Your task to perform on an android device: What is the news today? Image 0: 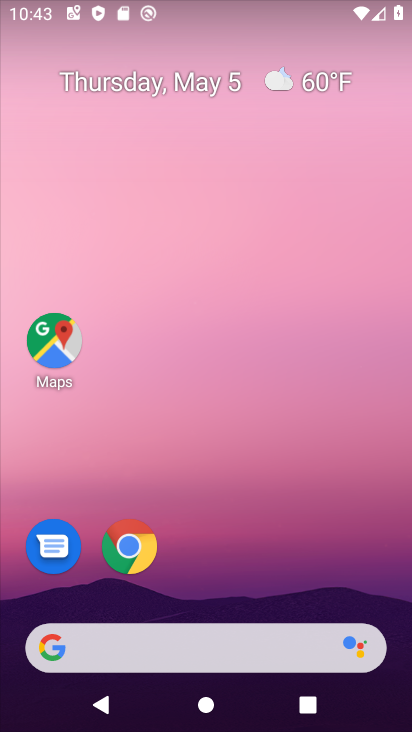
Step 0: drag from (301, 586) to (333, 58)
Your task to perform on an android device: What is the news today? Image 1: 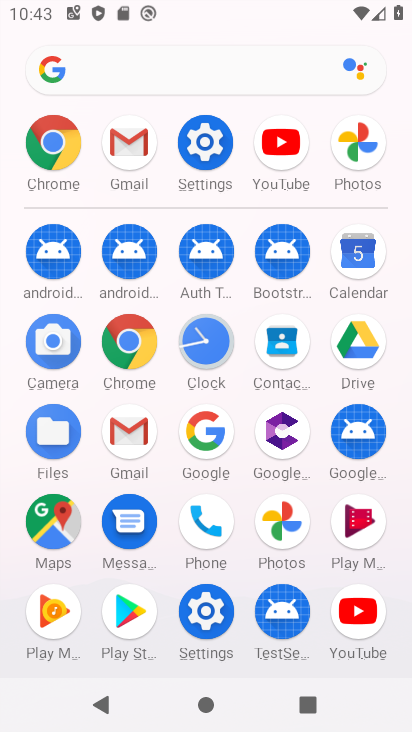
Step 1: click (127, 72)
Your task to perform on an android device: What is the news today? Image 2: 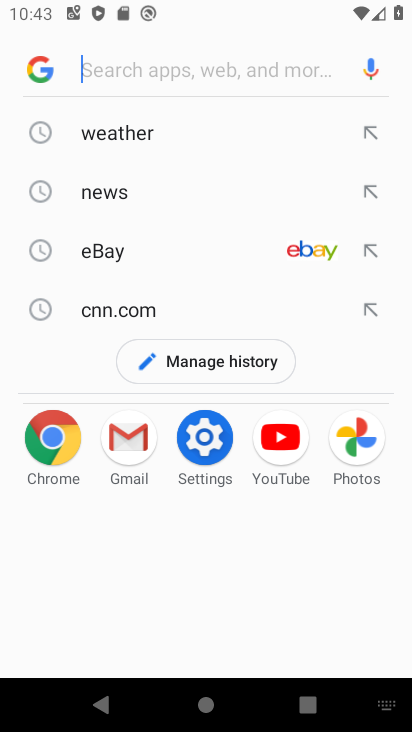
Step 2: type "what is the news today "
Your task to perform on an android device: What is the news today? Image 3: 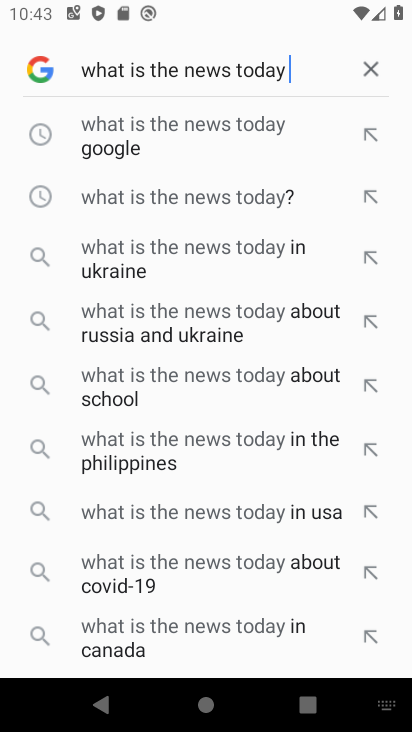
Step 3: click (231, 208)
Your task to perform on an android device: What is the news today? Image 4: 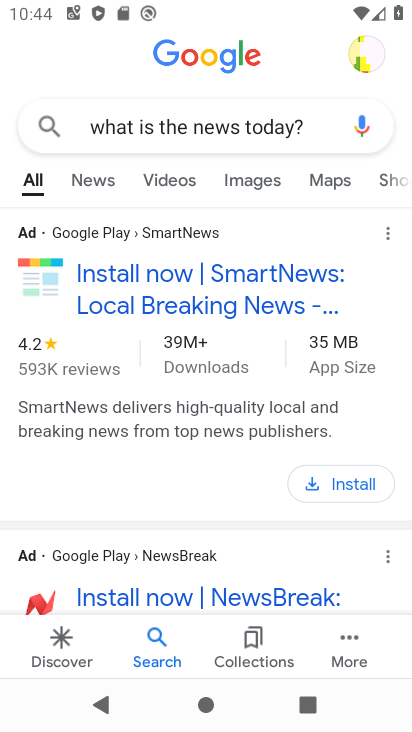
Step 4: click (105, 173)
Your task to perform on an android device: What is the news today? Image 5: 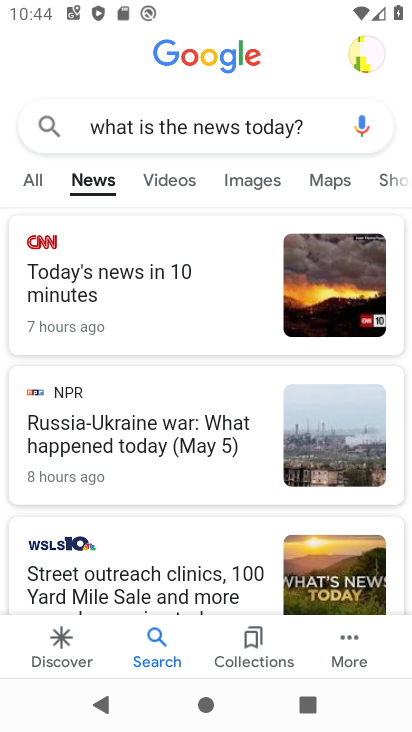
Step 5: task complete